Your task to perform on an android device: turn on location history Image 0: 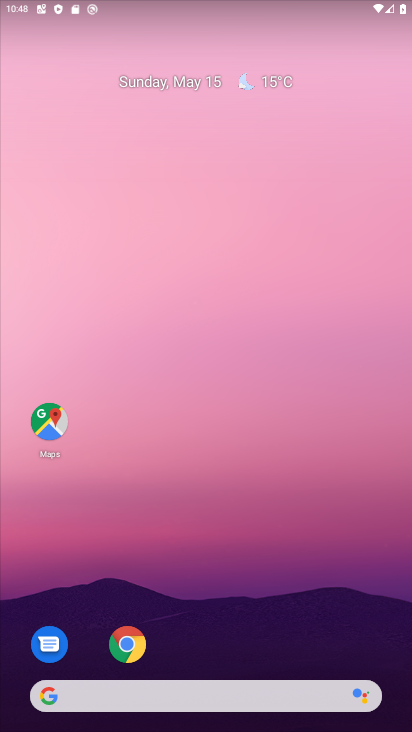
Step 0: click (132, 629)
Your task to perform on an android device: turn on location history Image 1: 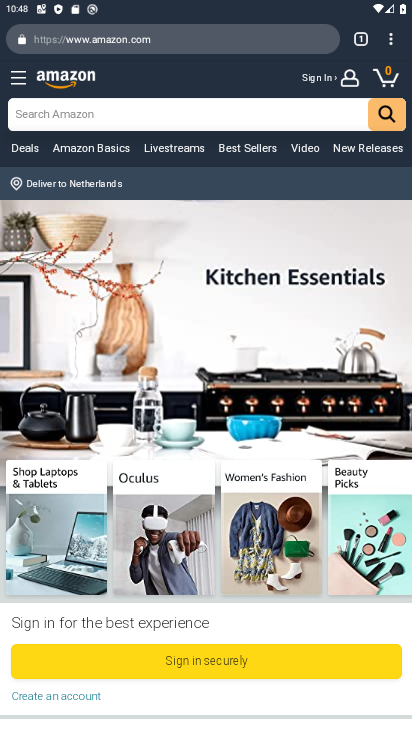
Step 1: click (392, 29)
Your task to perform on an android device: turn on location history Image 2: 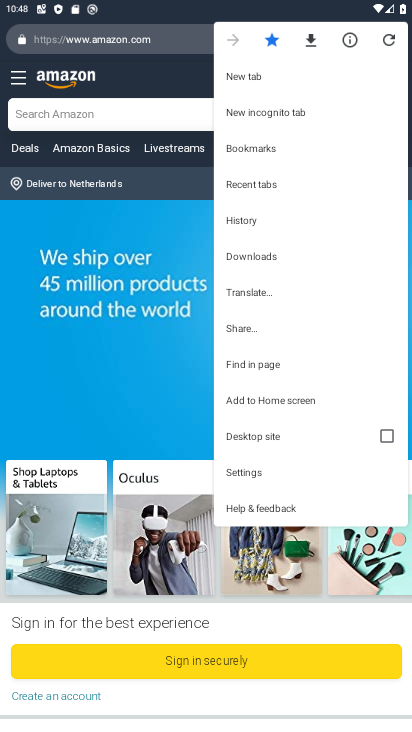
Step 2: click (256, 466)
Your task to perform on an android device: turn on location history Image 3: 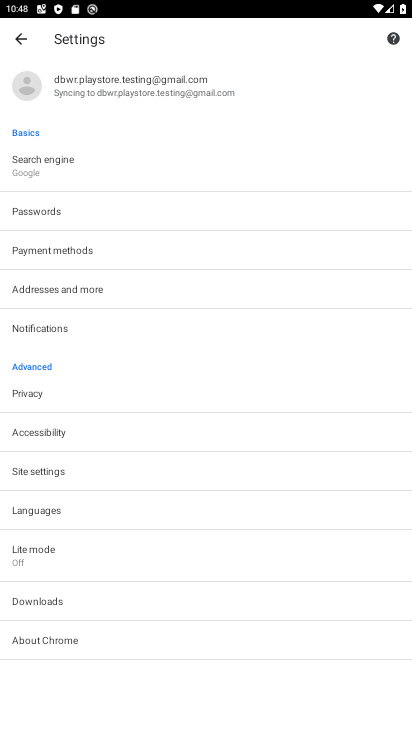
Step 3: click (19, 27)
Your task to perform on an android device: turn on location history Image 4: 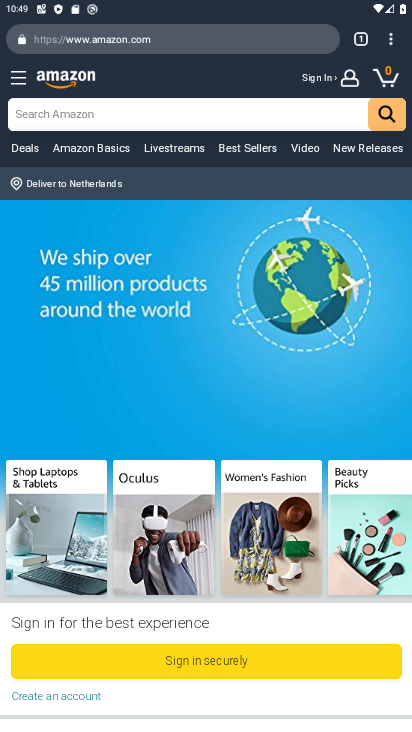
Step 4: press home button
Your task to perform on an android device: turn on location history Image 5: 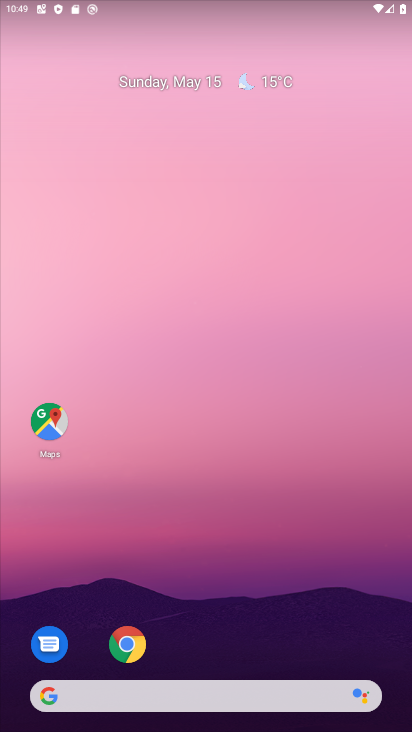
Step 5: drag from (338, 595) to (269, 52)
Your task to perform on an android device: turn on location history Image 6: 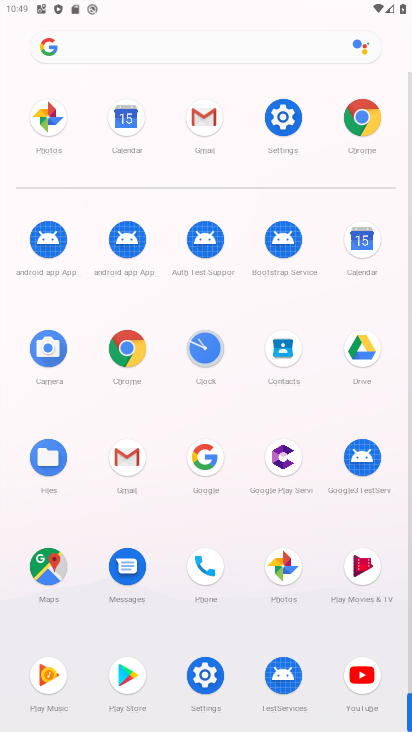
Step 6: click (283, 141)
Your task to perform on an android device: turn on location history Image 7: 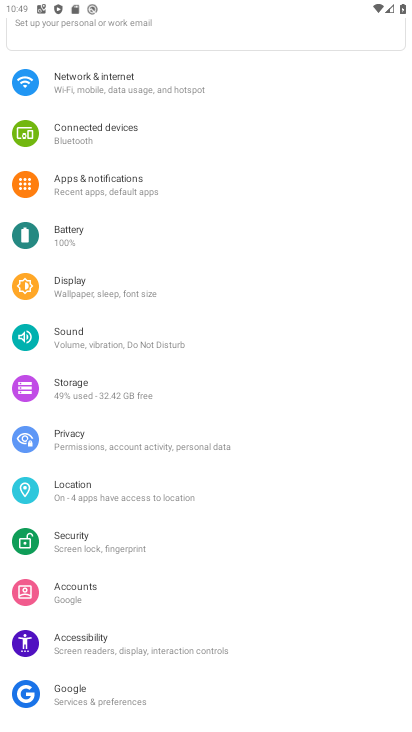
Step 7: click (106, 493)
Your task to perform on an android device: turn on location history Image 8: 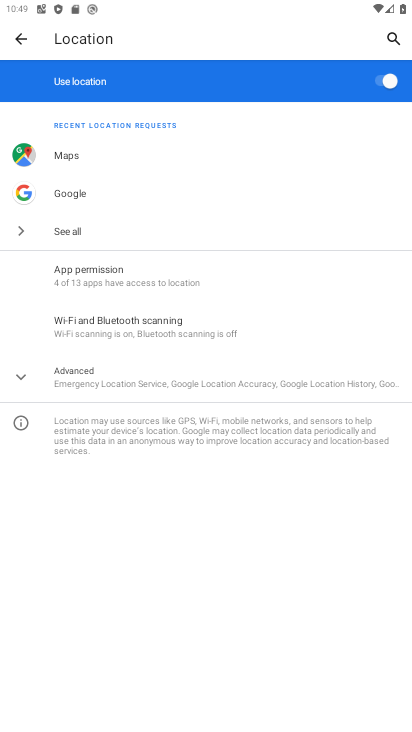
Step 8: click (108, 371)
Your task to perform on an android device: turn on location history Image 9: 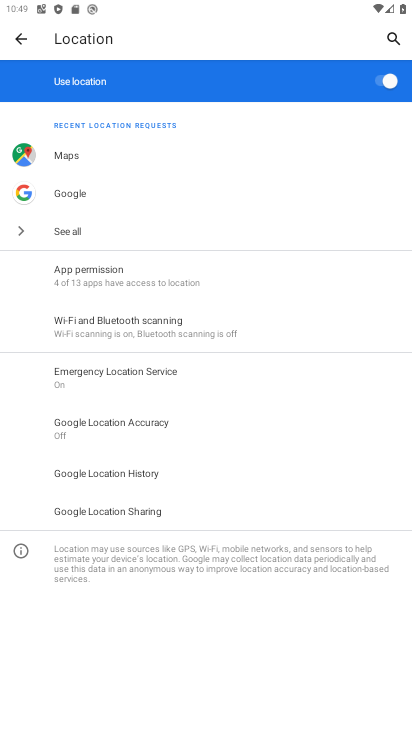
Step 9: click (172, 473)
Your task to perform on an android device: turn on location history Image 10: 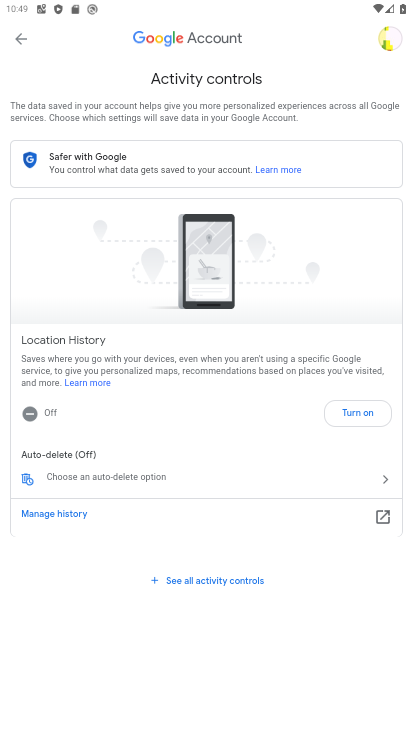
Step 10: click (357, 414)
Your task to perform on an android device: turn on location history Image 11: 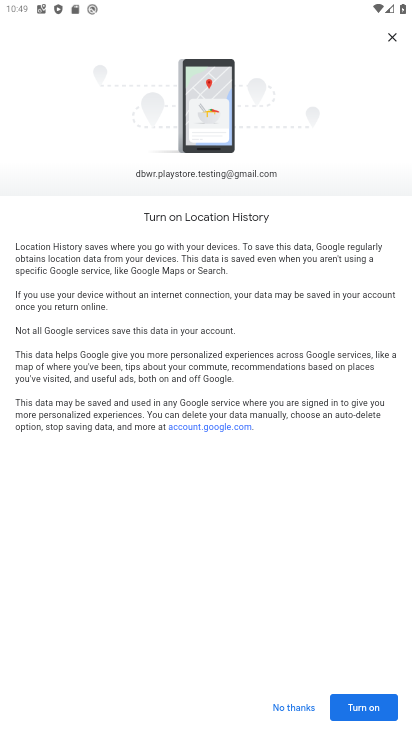
Step 11: click (354, 711)
Your task to perform on an android device: turn on location history Image 12: 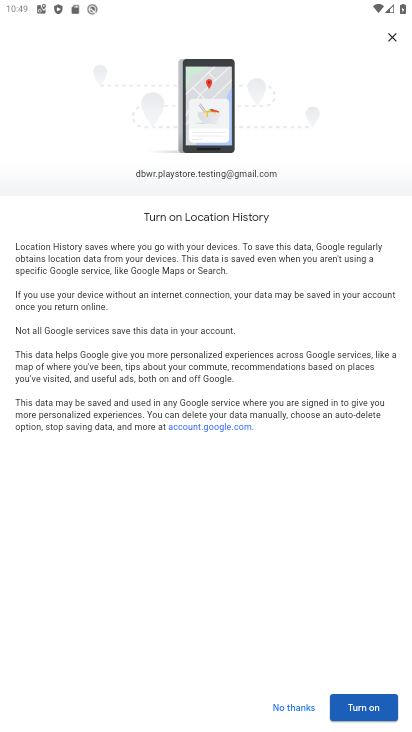
Step 12: click (354, 711)
Your task to perform on an android device: turn on location history Image 13: 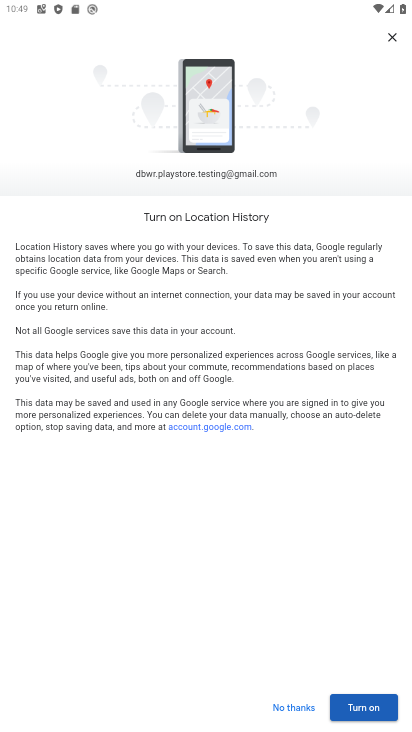
Step 13: click (352, 708)
Your task to perform on an android device: turn on location history Image 14: 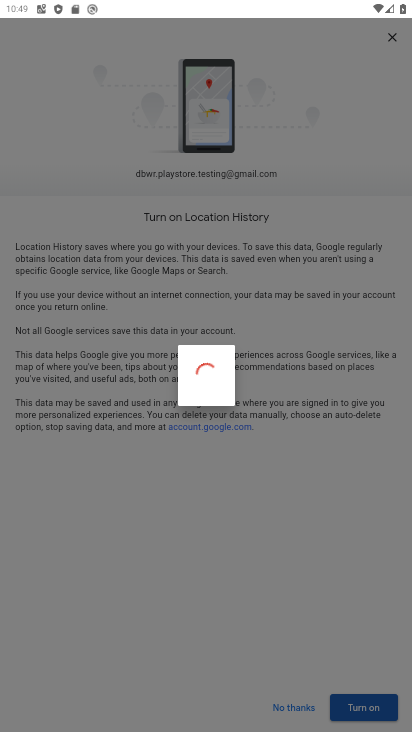
Step 14: click (352, 710)
Your task to perform on an android device: turn on location history Image 15: 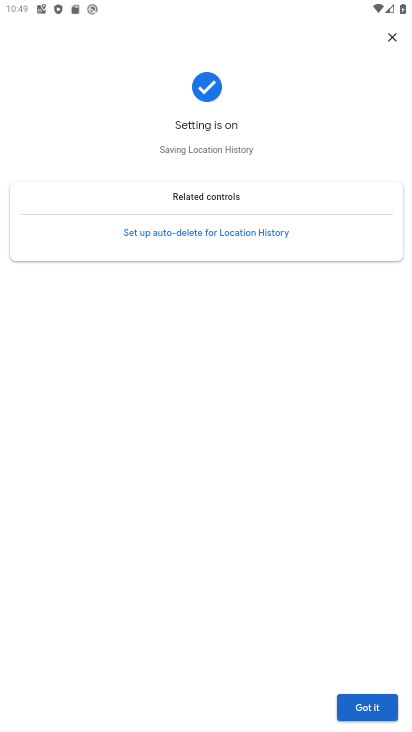
Step 15: click (360, 716)
Your task to perform on an android device: turn on location history Image 16: 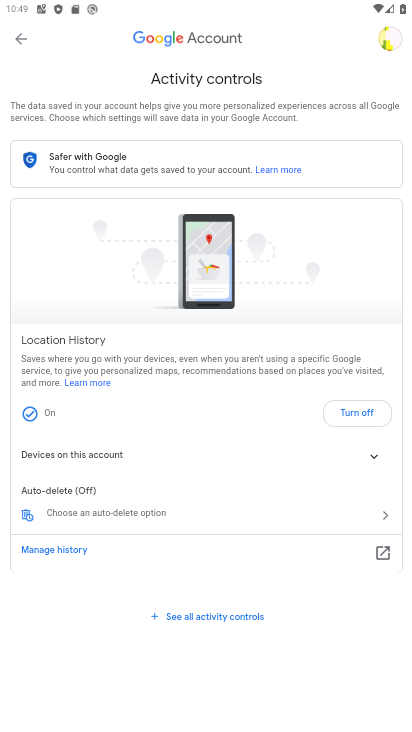
Step 16: task complete